Your task to perform on an android device: all mails in gmail Image 0: 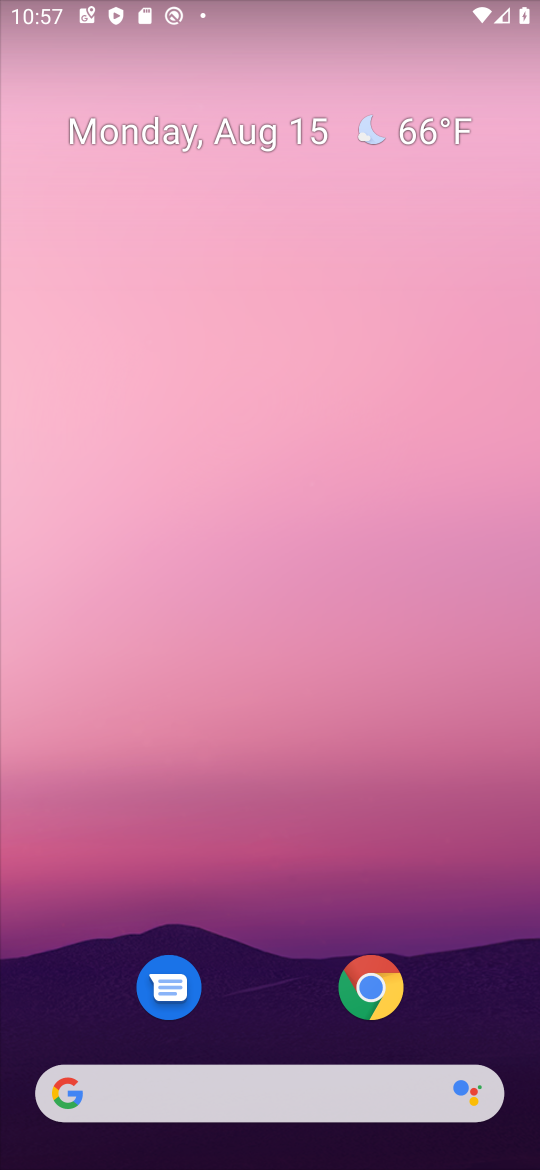
Step 0: drag from (282, 1061) to (234, 161)
Your task to perform on an android device: all mails in gmail Image 1: 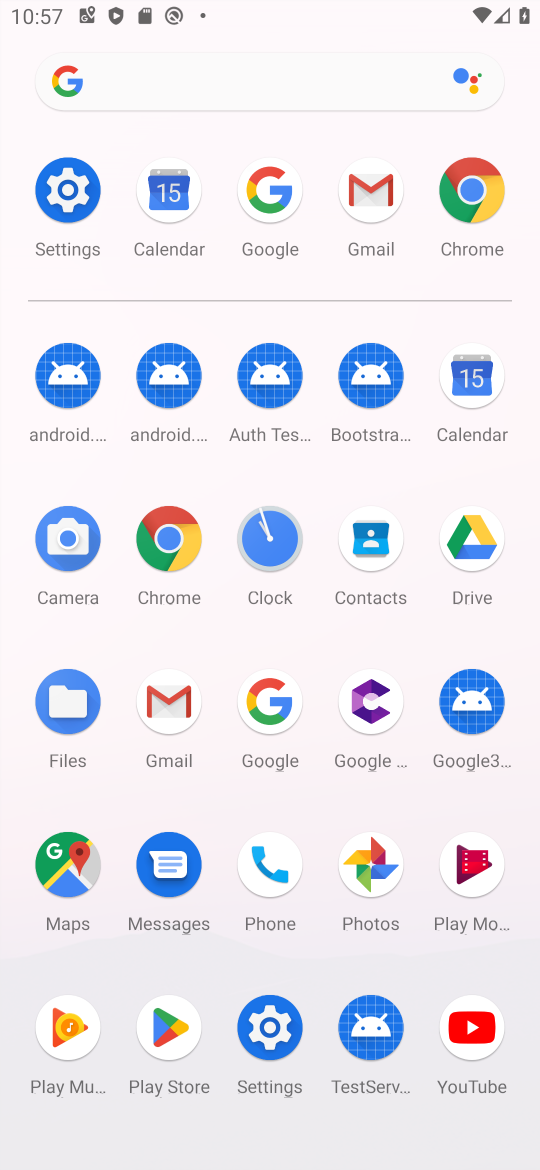
Step 1: click (150, 700)
Your task to perform on an android device: all mails in gmail Image 2: 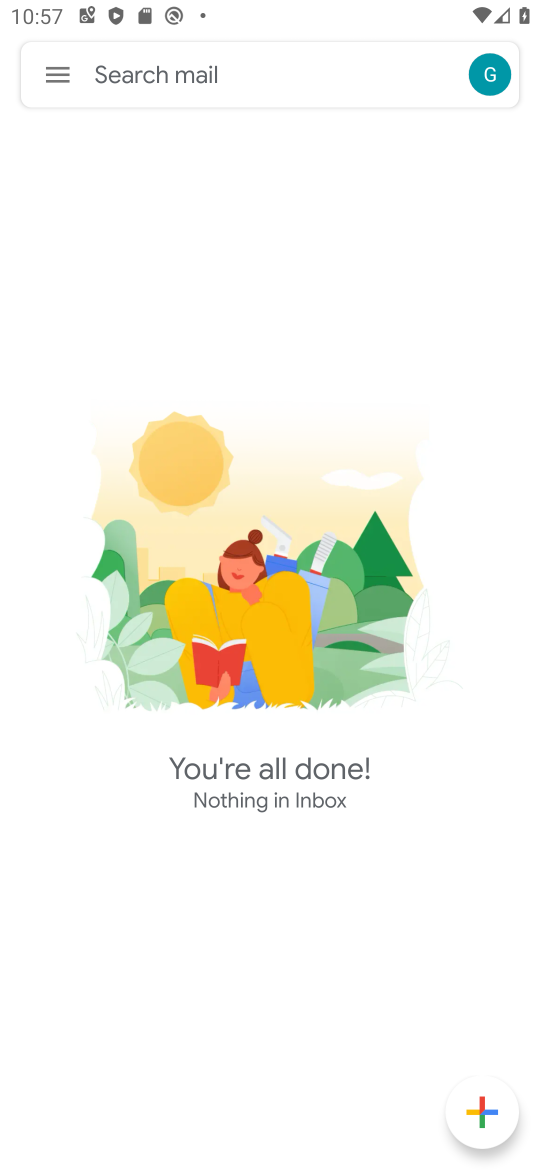
Step 2: click (52, 78)
Your task to perform on an android device: all mails in gmail Image 3: 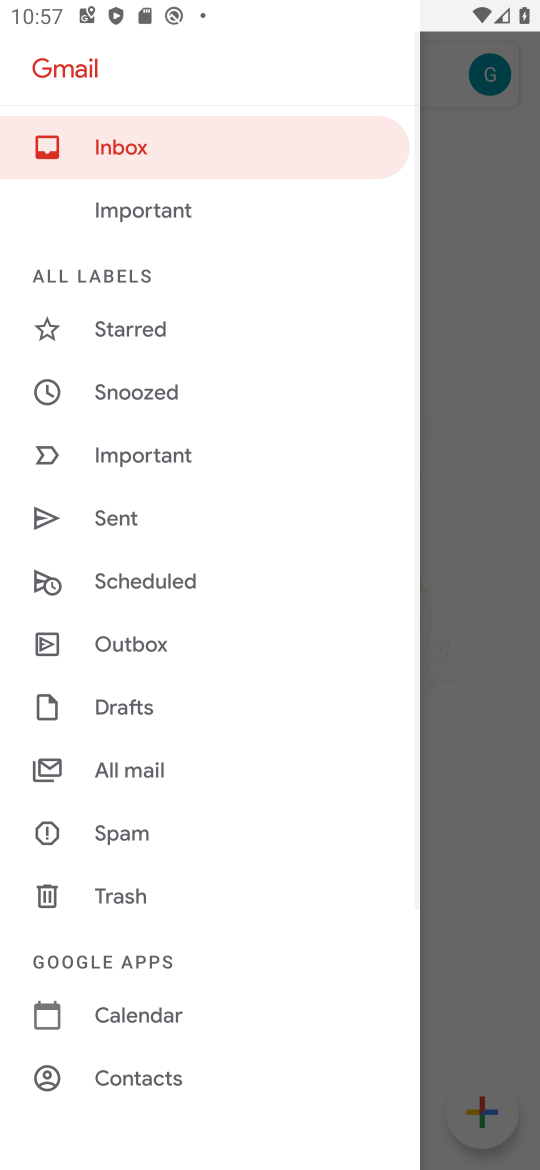
Step 3: click (146, 765)
Your task to perform on an android device: all mails in gmail Image 4: 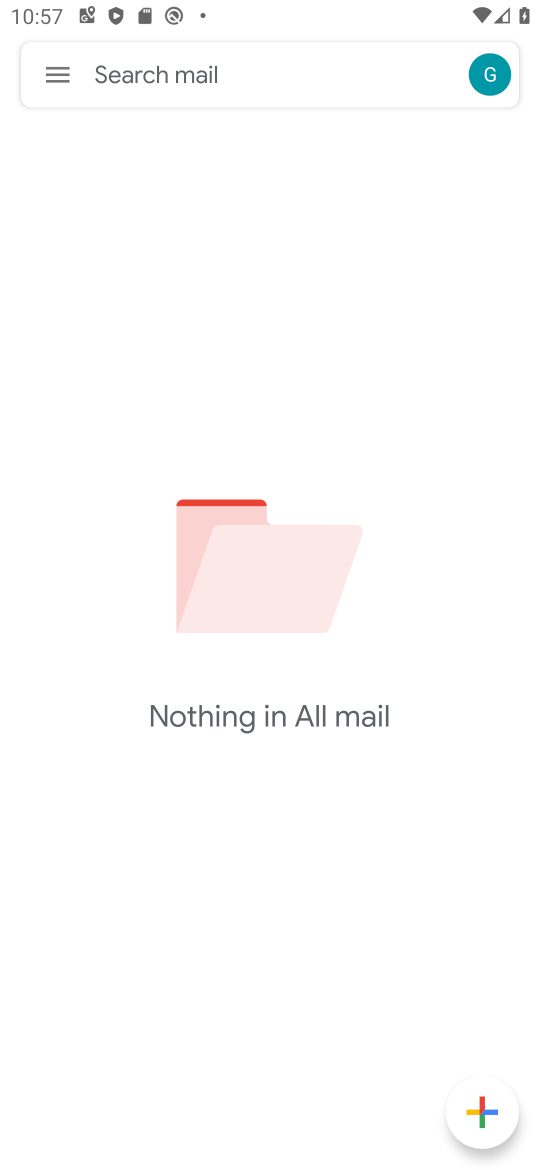
Step 4: task complete